Your task to perform on an android device: Open Yahoo.com Image 0: 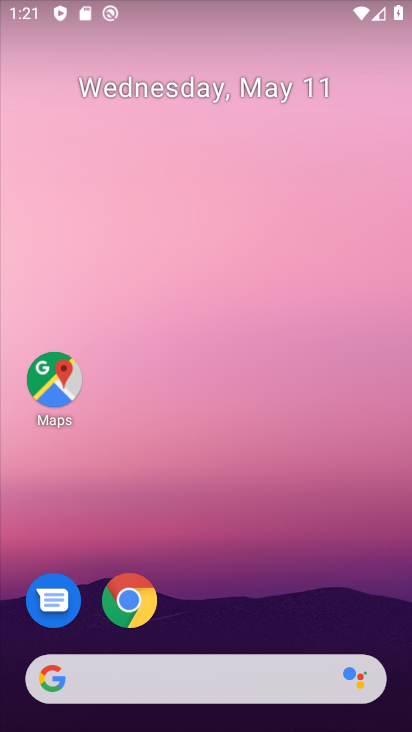
Step 0: drag from (254, 607) to (265, 257)
Your task to perform on an android device: Open Yahoo.com Image 1: 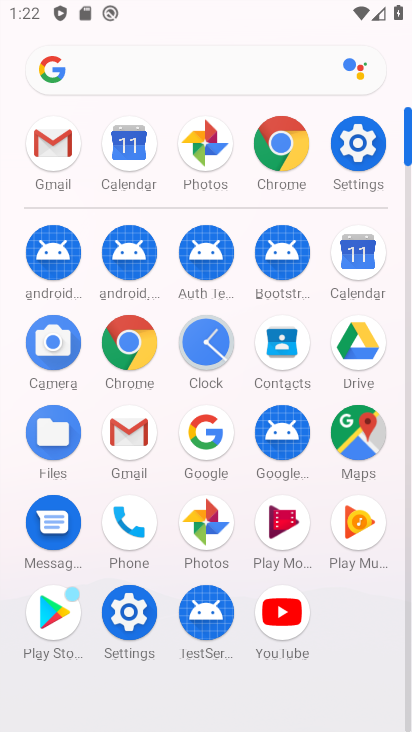
Step 1: click (291, 139)
Your task to perform on an android device: Open Yahoo.com Image 2: 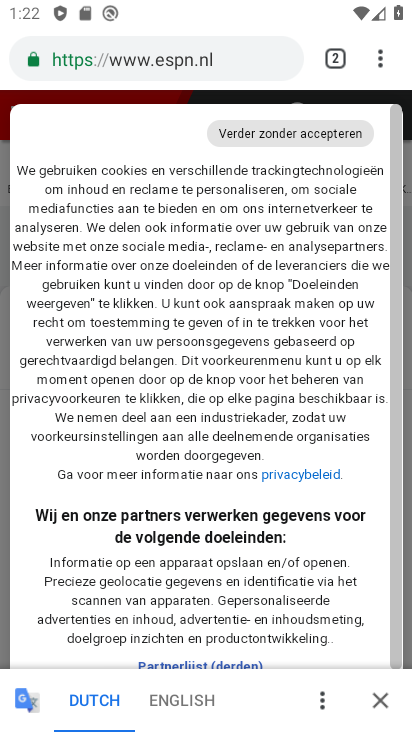
Step 2: click (365, 57)
Your task to perform on an android device: Open Yahoo.com Image 3: 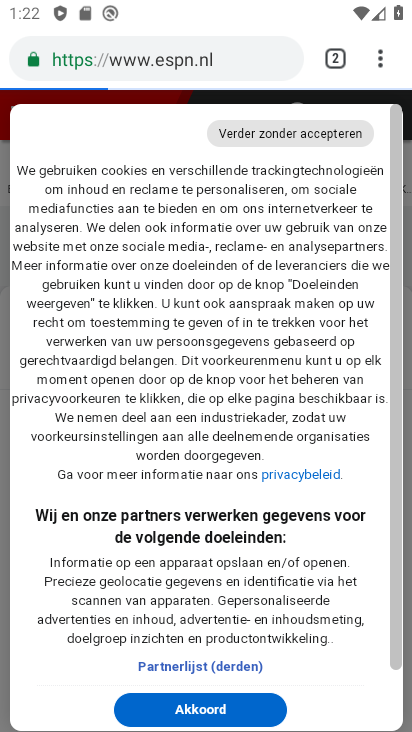
Step 3: click (348, 57)
Your task to perform on an android device: Open Yahoo.com Image 4: 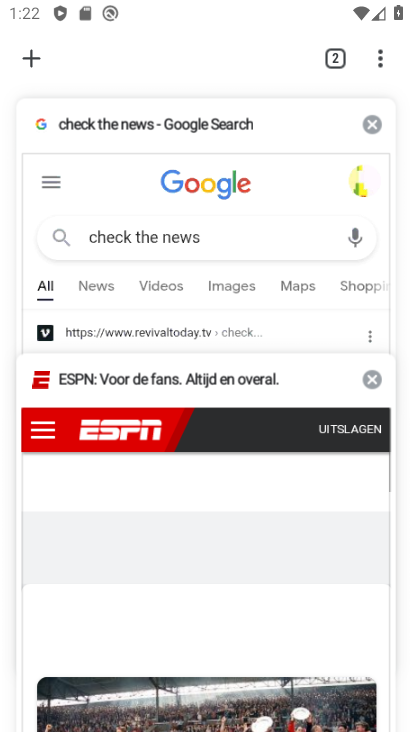
Step 4: click (359, 50)
Your task to perform on an android device: Open Yahoo.com Image 5: 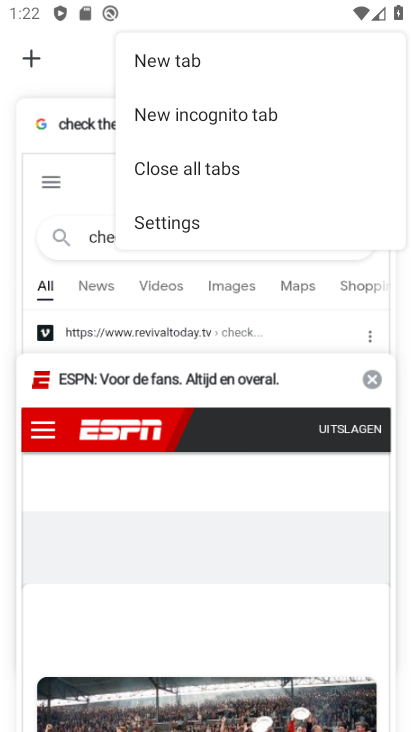
Step 5: click (196, 54)
Your task to perform on an android device: Open Yahoo.com Image 6: 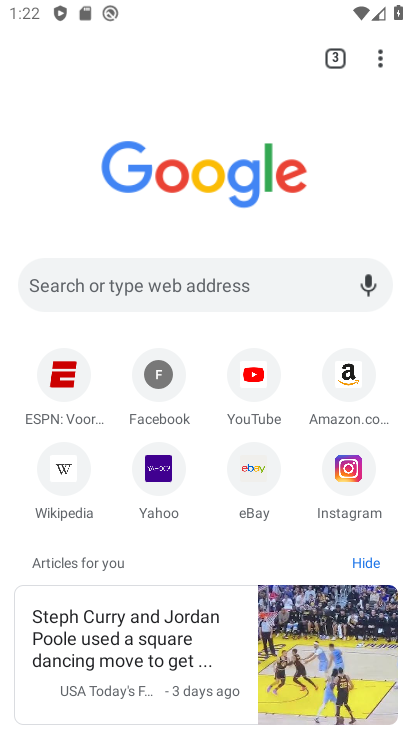
Step 6: click (168, 462)
Your task to perform on an android device: Open Yahoo.com Image 7: 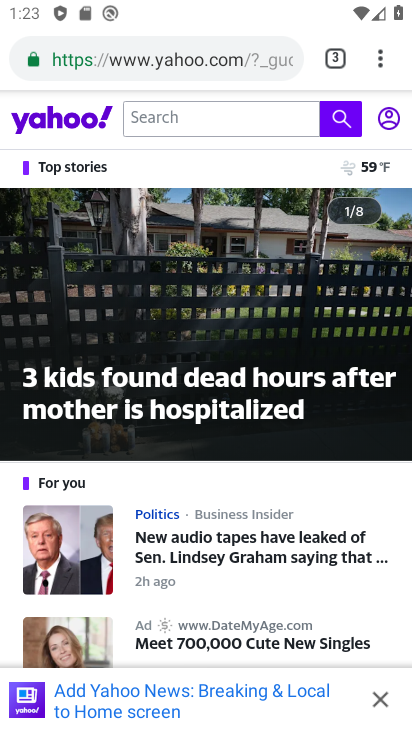
Step 7: task complete